Your task to perform on an android device: turn off wifi Image 0: 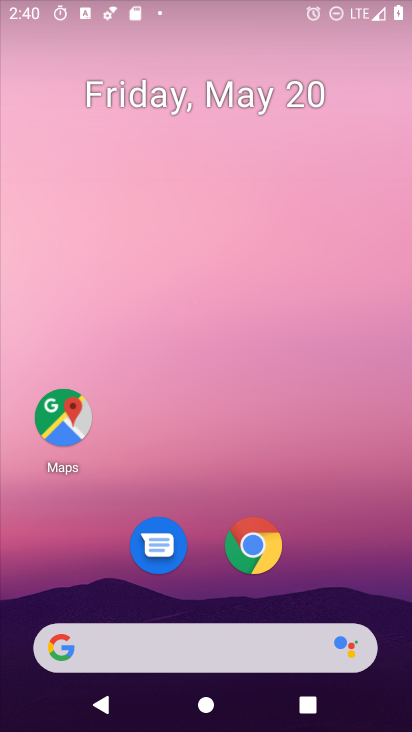
Step 0: drag from (237, 654) to (190, 0)
Your task to perform on an android device: turn off wifi Image 1: 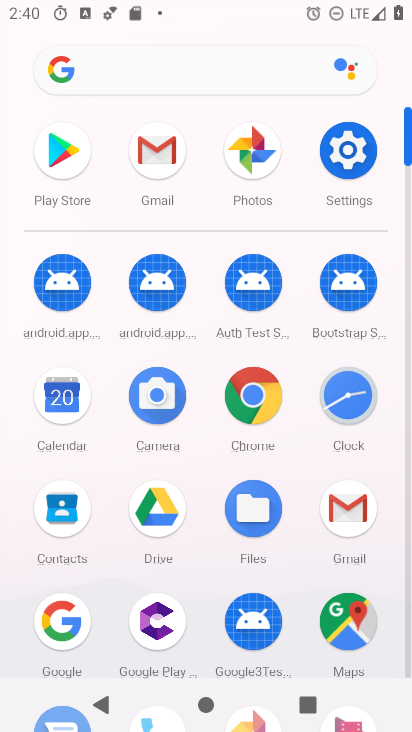
Step 1: click (269, 383)
Your task to perform on an android device: turn off wifi Image 2: 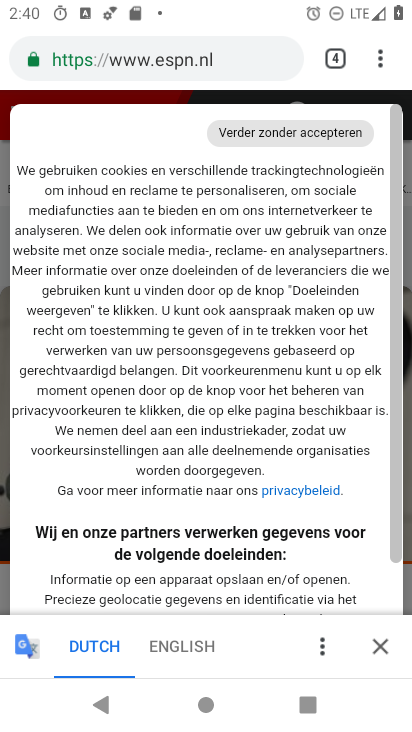
Step 2: press home button
Your task to perform on an android device: turn off wifi Image 3: 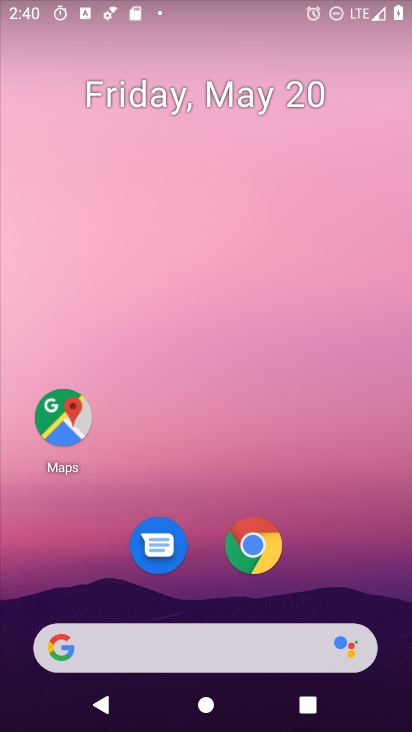
Step 3: drag from (323, 624) to (304, 49)
Your task to perform on an android device: turn off wifi Image 4: 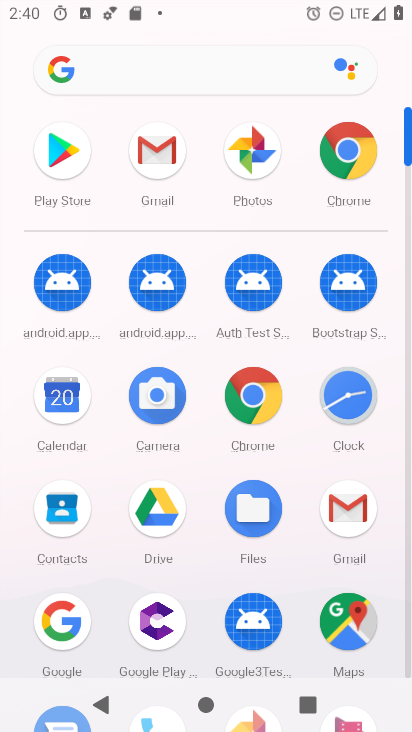
Step 4: drag from (295, 622) to (293, 189)
Your task to perform on an android device: turn off wifi Image 5: 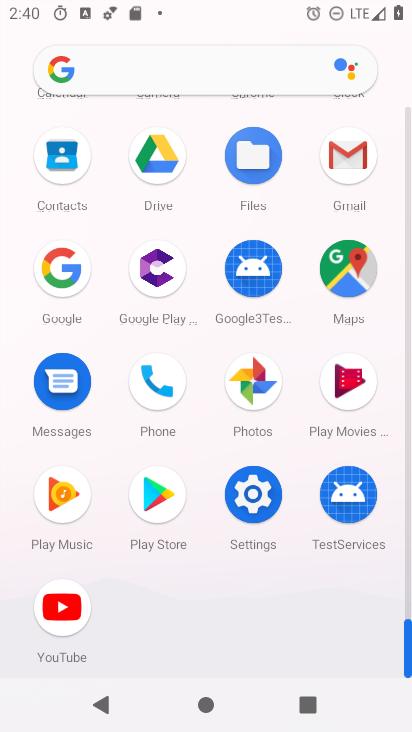
Step 5: click (262, 511)
Your task to perform on an android device: turn off wifi Image 6: 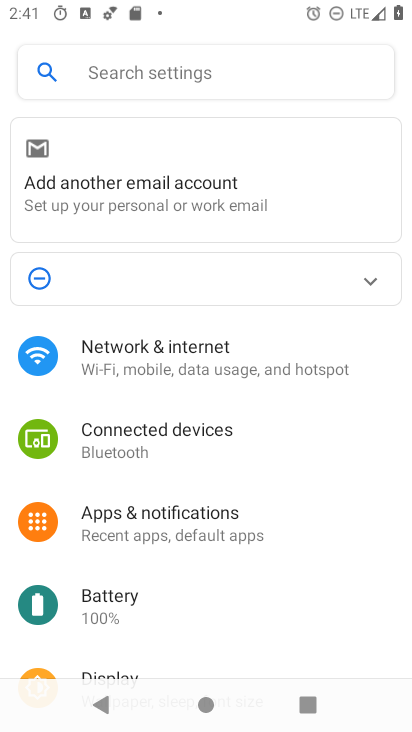
Step 6: click (230, 360)
Your task to perform on an android device: turn off wifi Image 7: 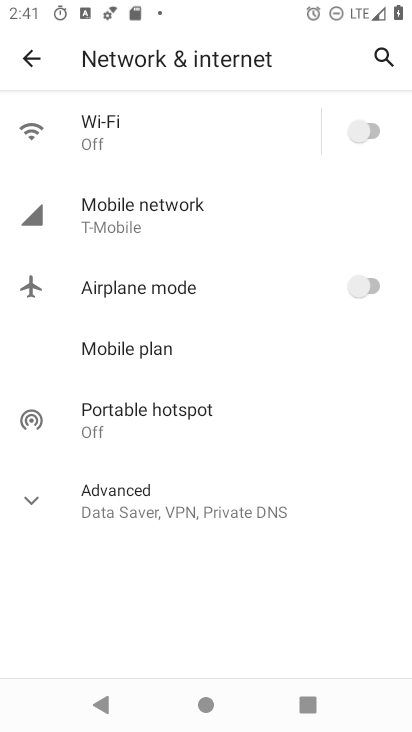
Step 7: task complete